Your task to perform on an android device: Turn off the flashlight Image 0: 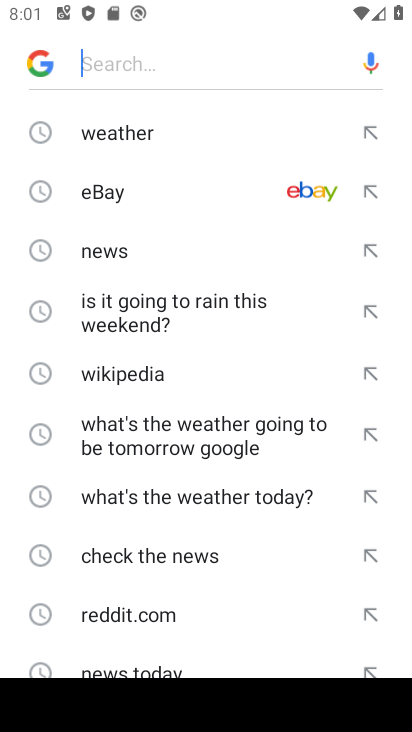
Step 0: press home button
Your task to perform on an android device: Turn off the flashlight Image 1: 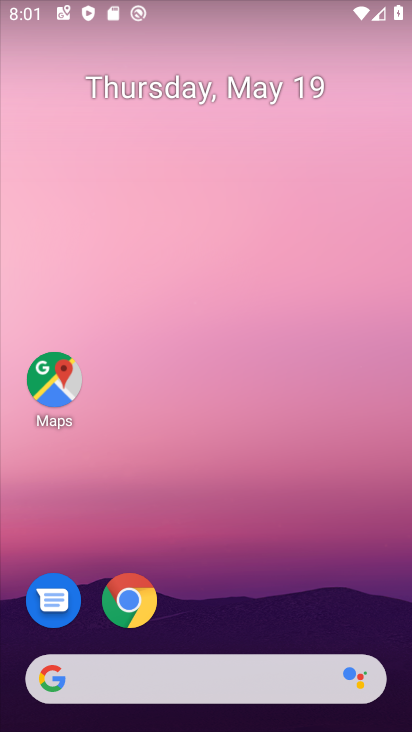
Step 1: task complete